Your task to perform on an android device: change the clock style Image 0: 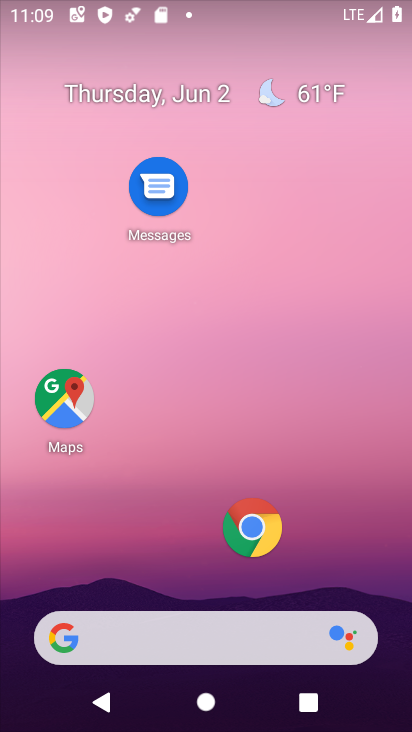
Step 0: press home button
Your task to perform on an android device: change the clock style Image 1: 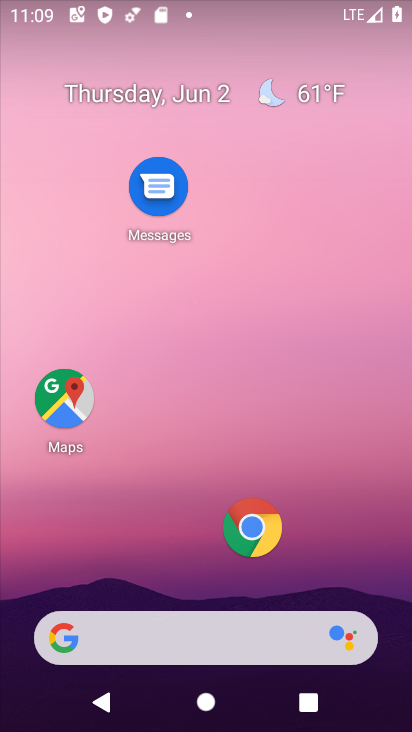
Step 1: drag from (196, 572) to (254, 22)
Your task to perform on an android device: change the clock style Image 2: 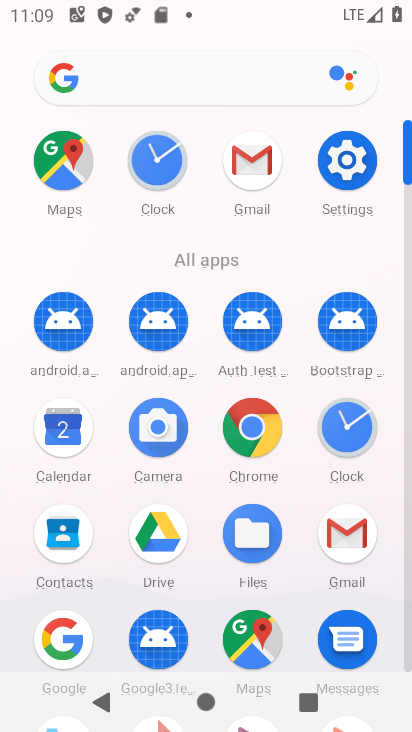
Step 2: click (153, 148)
Your task to perform on an android device: change the clock style Image 3: 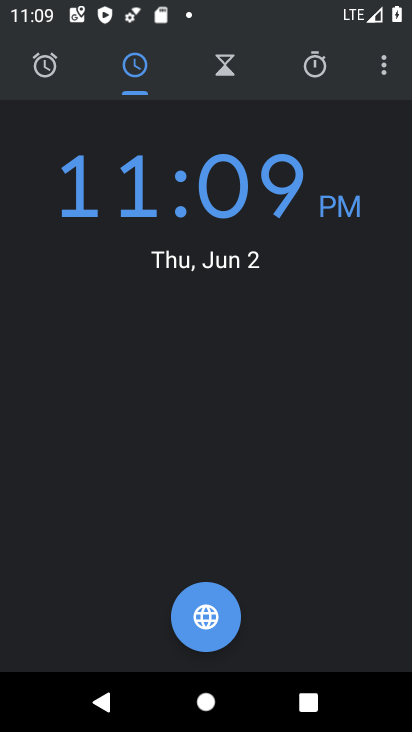
Step 3: click (384, 60)
Your task to perform on an android device: change the clock style Image 4: 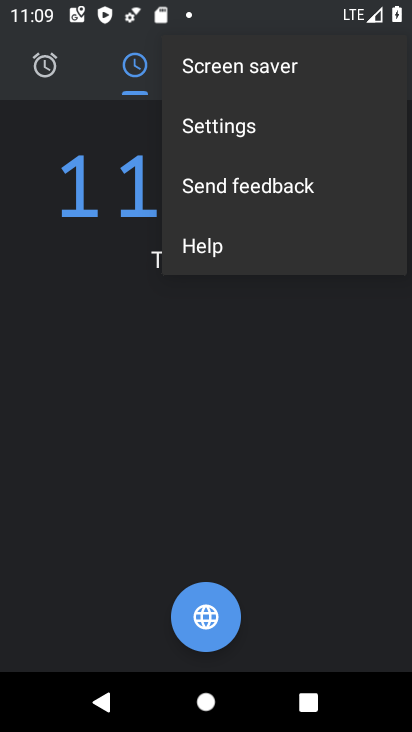
Step 4: click (274, 130)
Your task to perform on an android device: change the clock style Image 5: 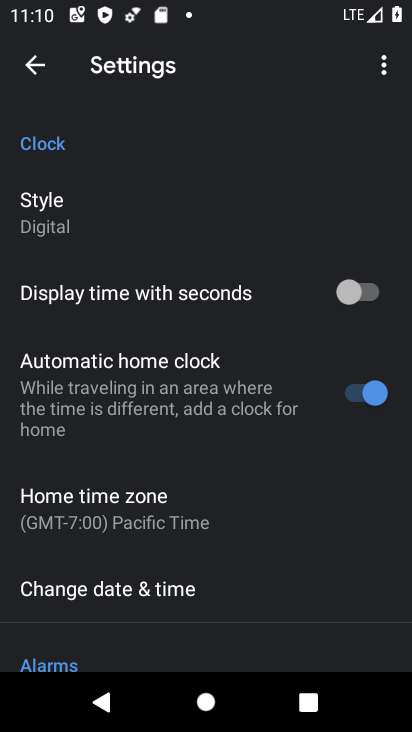
Step 5: click (94, 216)
Your task to perform on an android device: change the clock style Image 6: 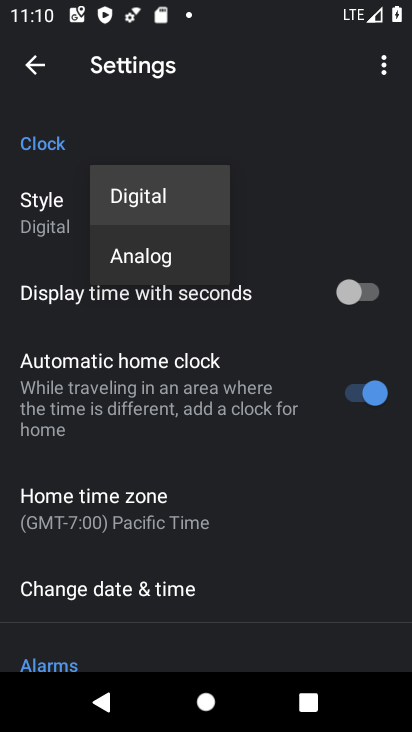
Step 6: click (154, 263)
Your task to perform on an android device: change the clock style Image 7: 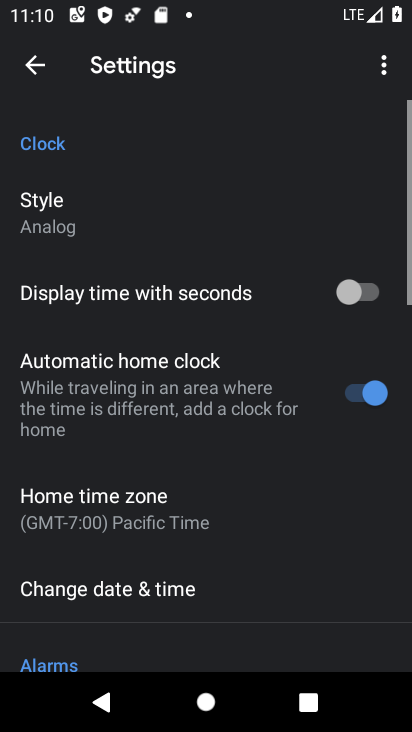
Step 7: task complete